Your task to perform on an android device: set the timer Image 0: 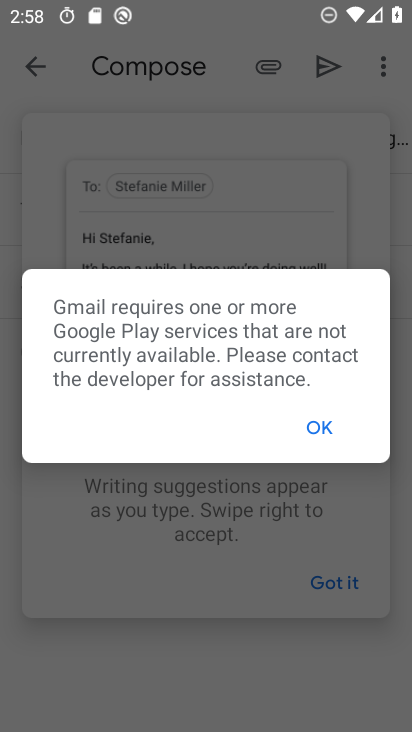
Step 0: press home button
Your task to perform on an android device: set the timer Image 1: 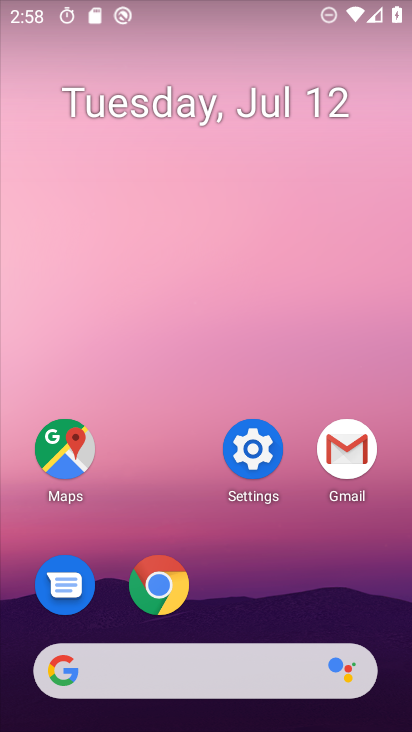
Step 1: click (249, 456)
Your task to perform on an android device: set the timer Image 2: 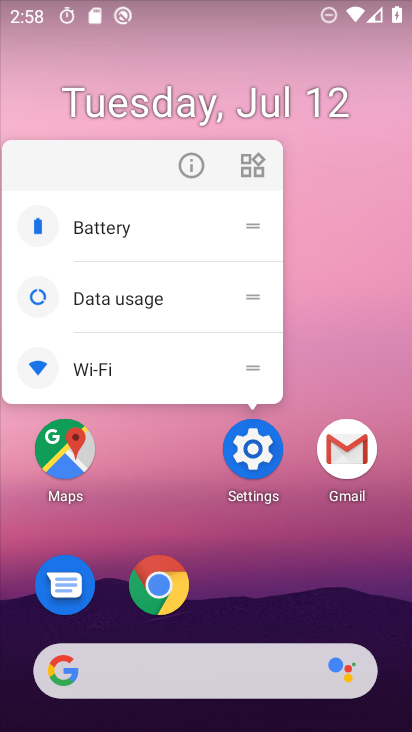
Step 2: click (349, 333)
Your task to perform on an android device: set the timer Image 3: 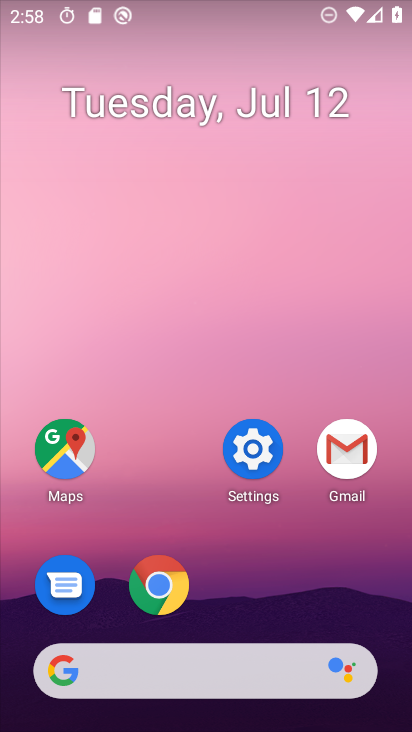
Step 3: drag from (401, 707) to (368, 31)
Your task to perform on an android device: set the timer Image 4: 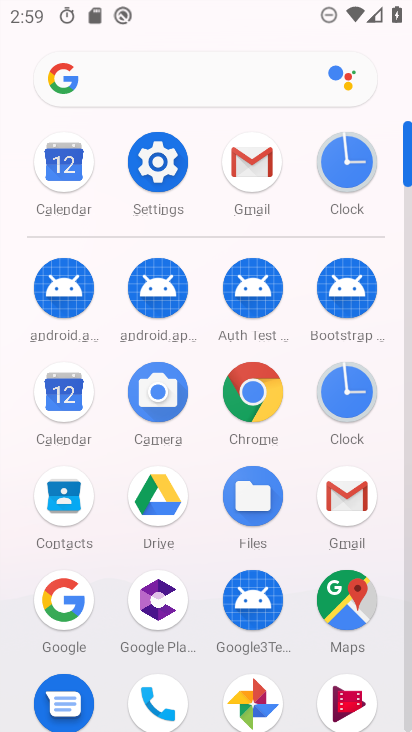
Step 4: click (340, 389)
Your task to perform on an android device: set the timer Image 5: 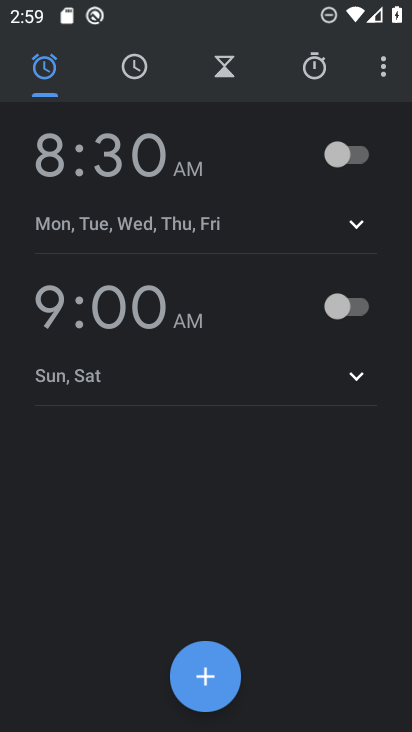
Step 5: click (310, 68)
Your task to perform on an android device: set the timer Image 6: 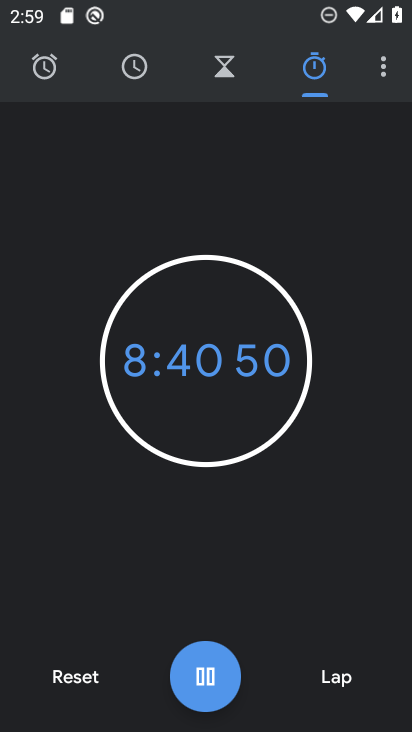
Step 6: click (228, 76)
Your task to perform on an android device: set the timer Image 7: 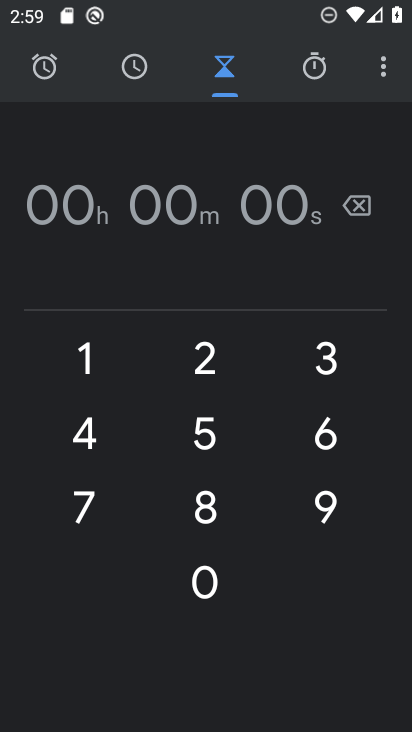
Step 7: click (91, 437)
Your task to perform on an android device: set the timer Image 8: 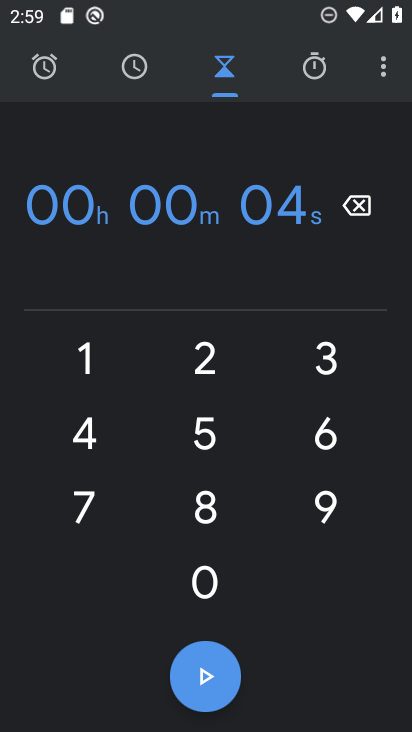
Step 8: click (92, 435)
Your task to perform on an android device: set the timer Image 9: 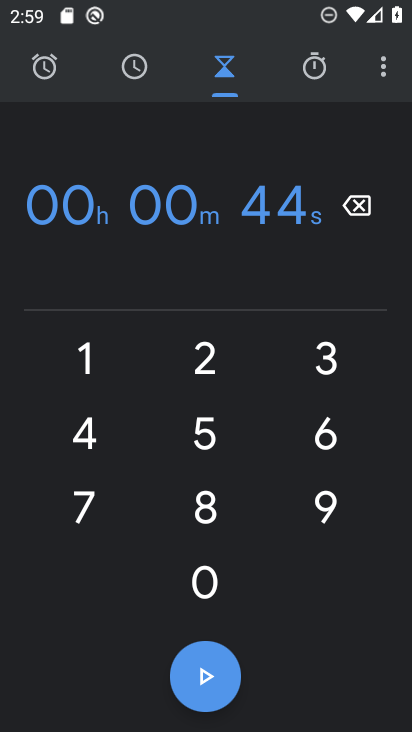
Step 9: click (214, 668)
Your task to perform on an android device: set the timer Image 10: 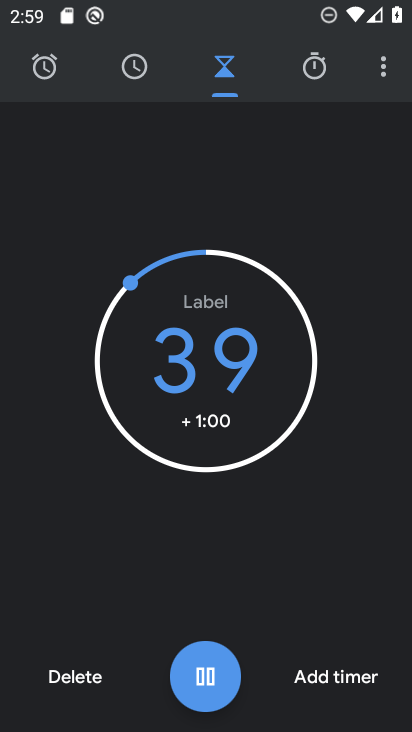
Step 10: task complete